Your task to perform on an android device: allow cookies in the chrome app Image 0: 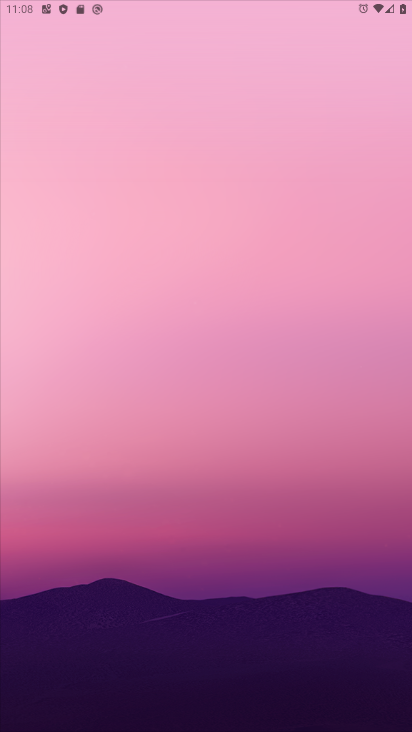
Step 0: press home button
Your task to perform on an android device: allow cookies in the chrome app Image 1: 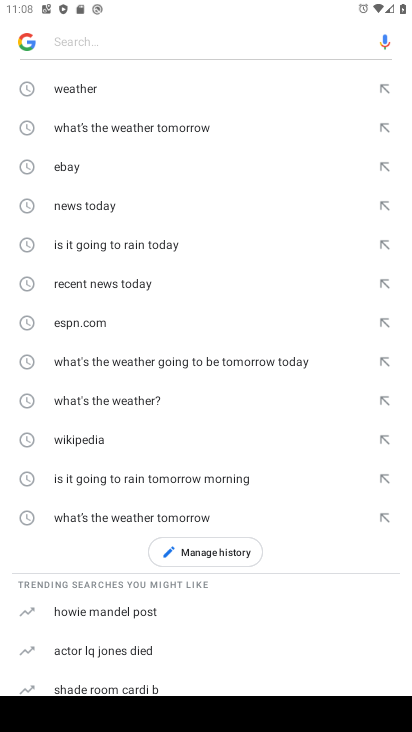
Step 1: drag from (227, 643) to (209, 77)
Your task to perform on an android device: allow cookies in the chrome app Image 2: 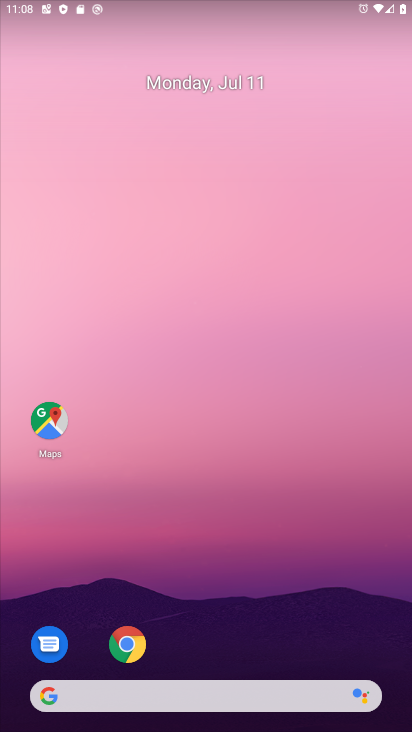
Step 2: click (126, 640)
Your task to perform on an android device: allow cookies in the chrome app Image 3: 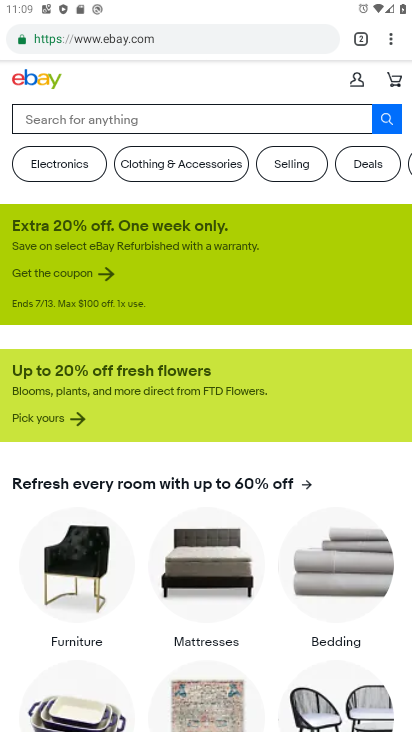
Step 3: click (390, 34)
Your task to perform on an android device: allow cookies in the chrome app Image 4: 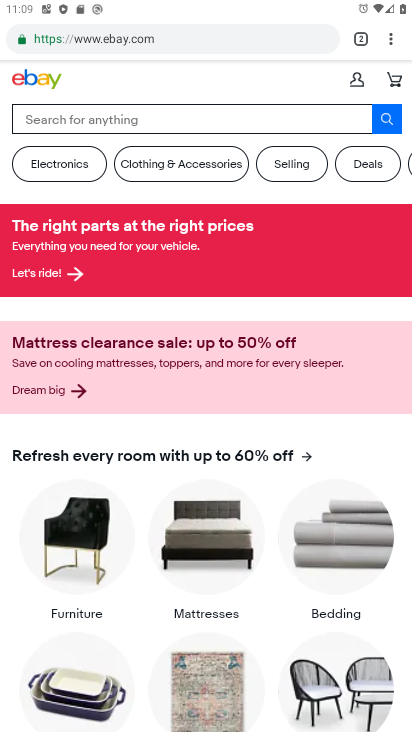
Step 4: click (390, 34)
Your task to perform on an android device: allow cookies in the chrome app Image 5: 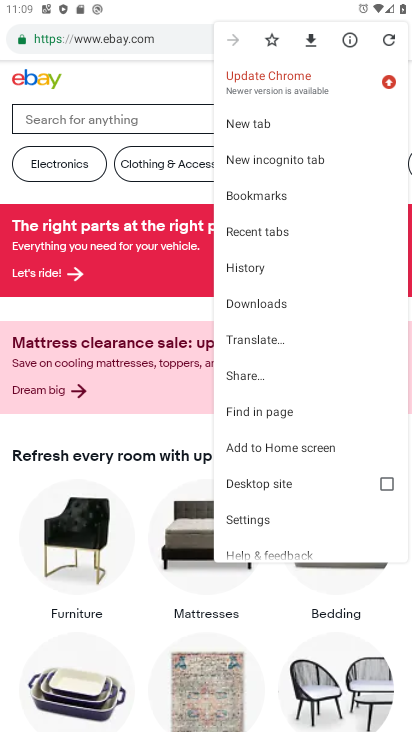
Step 5: click (272, 513)
Your task to perform on an android device: allow cookies in the chrome app Image 6: 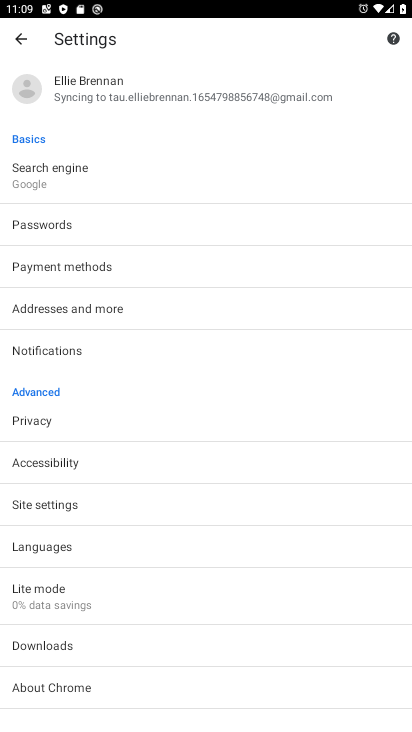
Step 6: click (106, 507)
Your task to perform on an android device: allow cookies in the chrome app Image 7: 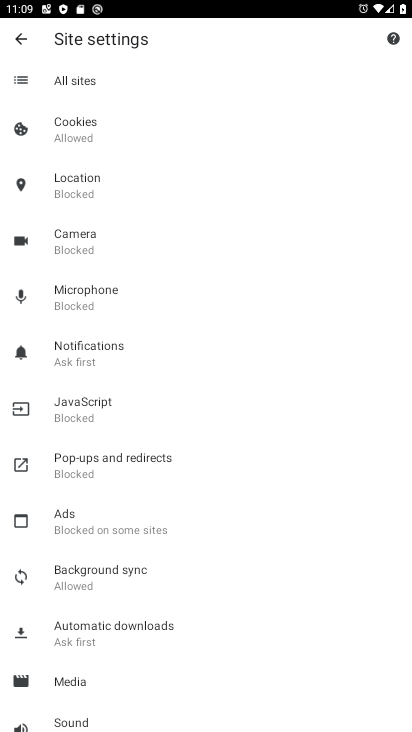
Step 7: click (106, 132)
Your task to perform on an android device: allow cookies in the chrome app Image 8: 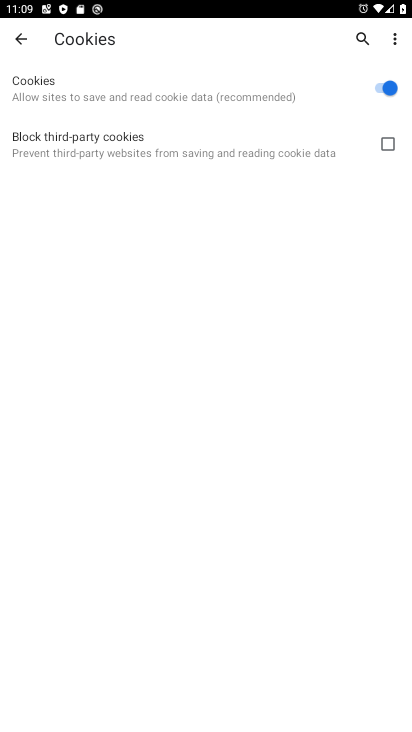
Step 8: task complete